Your task to perform on an android device: Open Google Image 0: 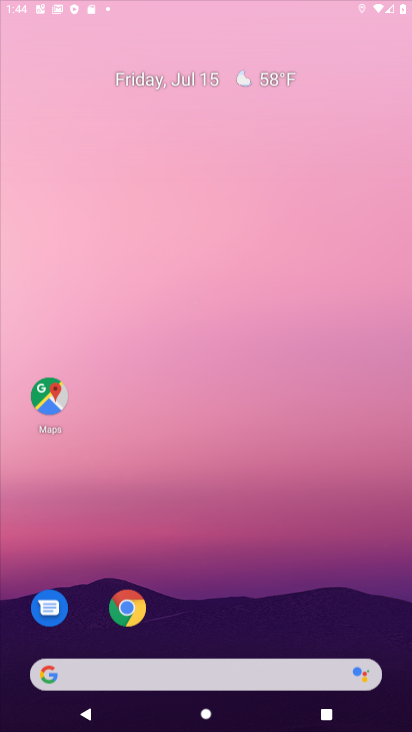
Step 0: drag from (291, 492) to (291, 177)
Your task to perform on an android device: Open Google Image 1: 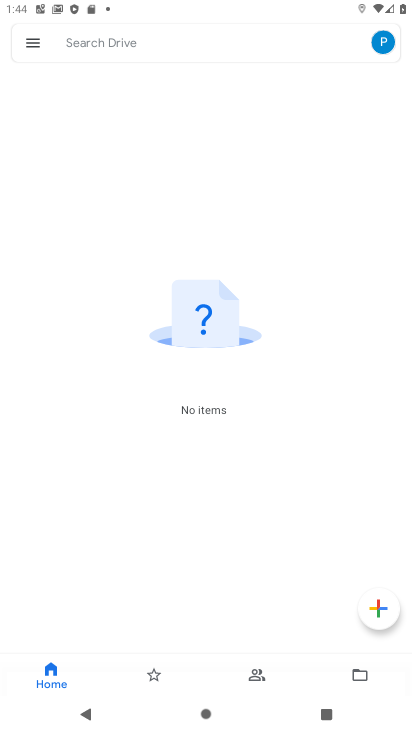
Step 1: press home button
Your task to perform on an android device: Open Google Image 2: 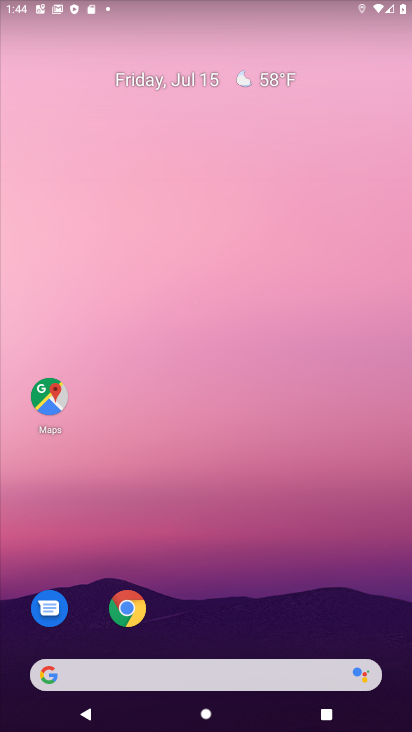
Step 2: drag from (295, 573) to (302, 93)
Your task to perform on an android device: Open Google Image 3: 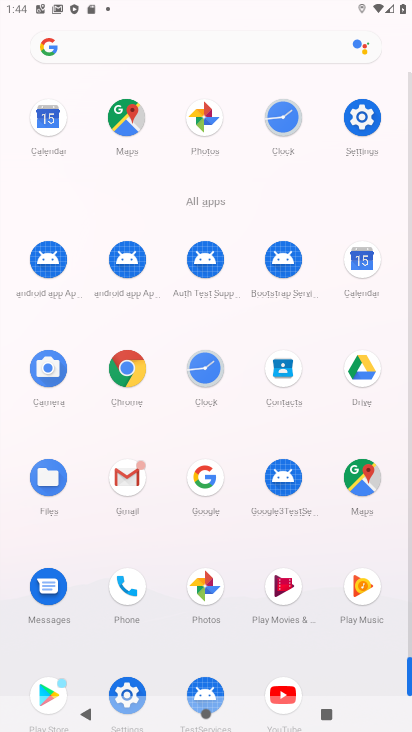
Step 3: click (203, 474)
Your task to perform on an android device: Open Google Image 4: 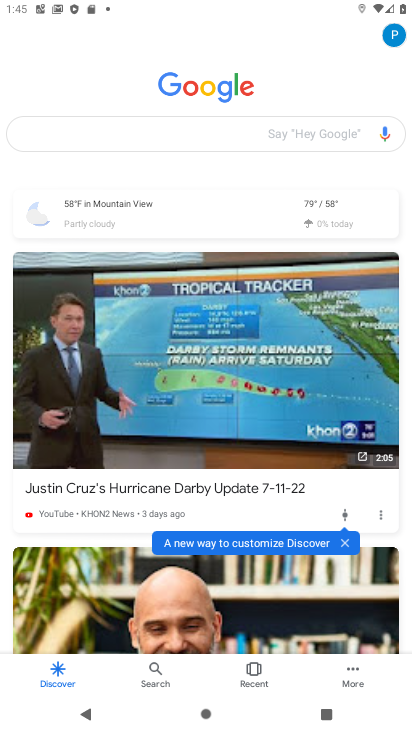
Step 4: task complete